Your task to perform on an android device: Open Google Chrome Image 0: 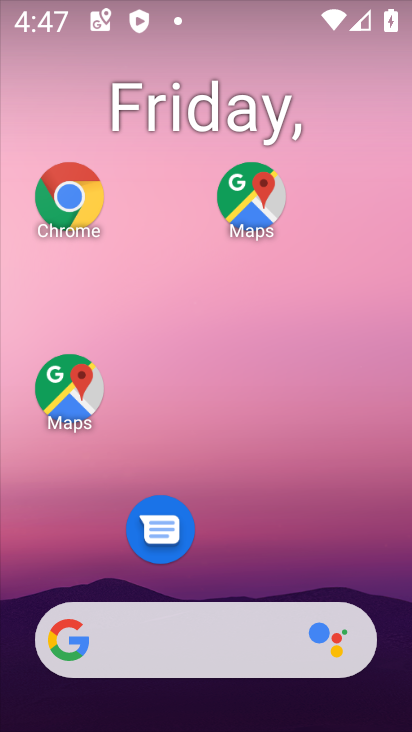
Step 0: click (82, 217)
Your task to perform on an android device: Open Google Chrome Image 1: 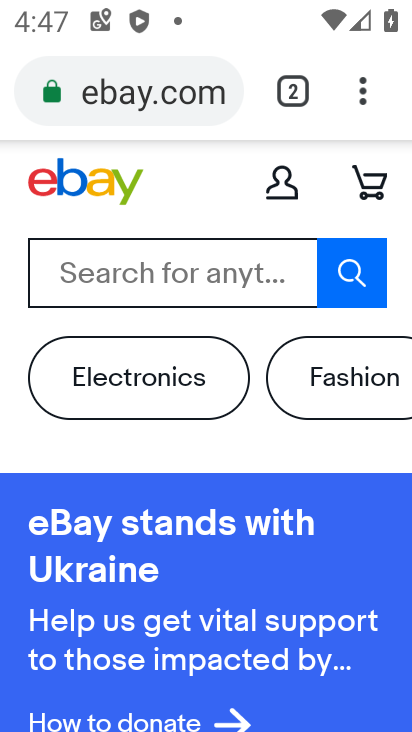
Step 1: task complete